Your task to perform on an android device: Go to Amazon Image 0: 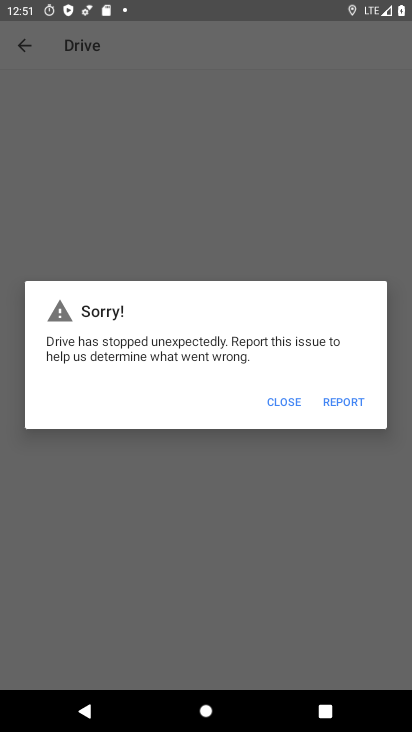
Step 0: press home button
Your task to perform on an android device: Go to Amazon Image 1: 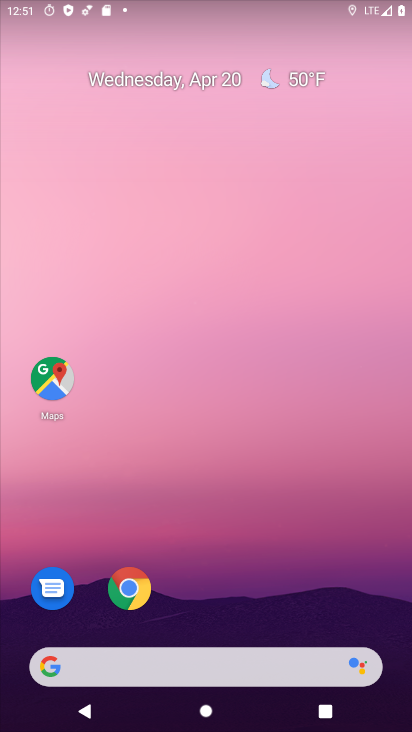
Step 1: click (140, 587)
Your task to perform on an android device: Go to Amazon Image 2: 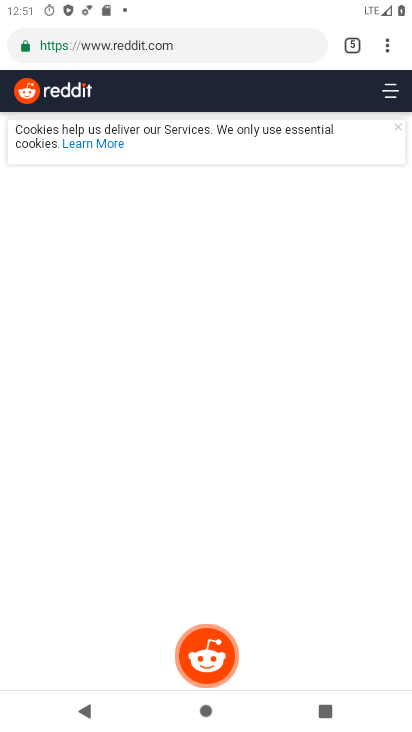
Step 2: click (348, 47)
Your task to perform on an android device: Go to Amazon Image 3: 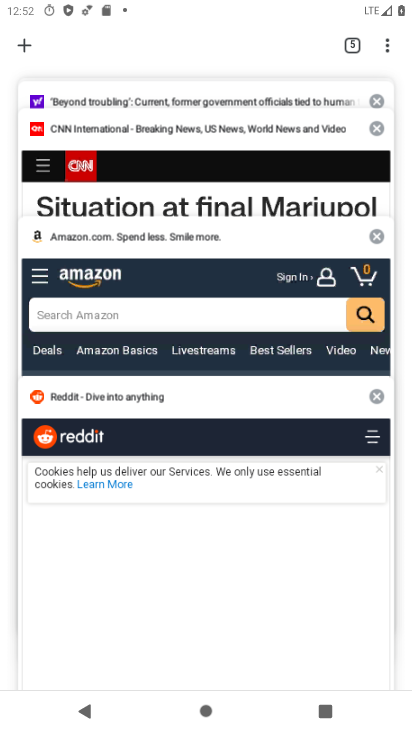
Step 3: click (23, 41)
Your task to perform on an android device: Go to Amazon Image 4: 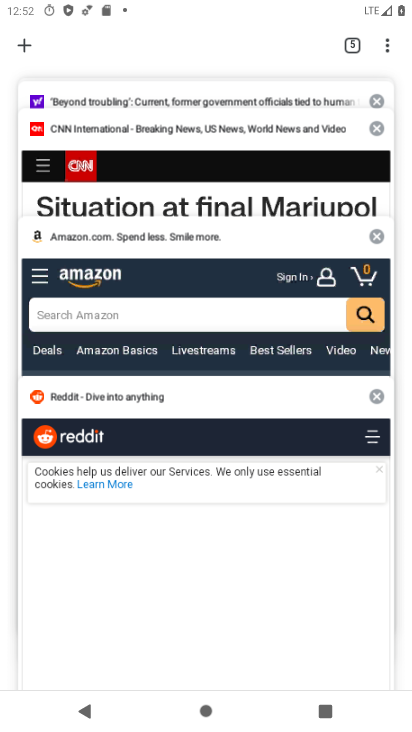
Step 4: click (31, 62)
Your task to perform on an android device: Go to Amazon Image 5: 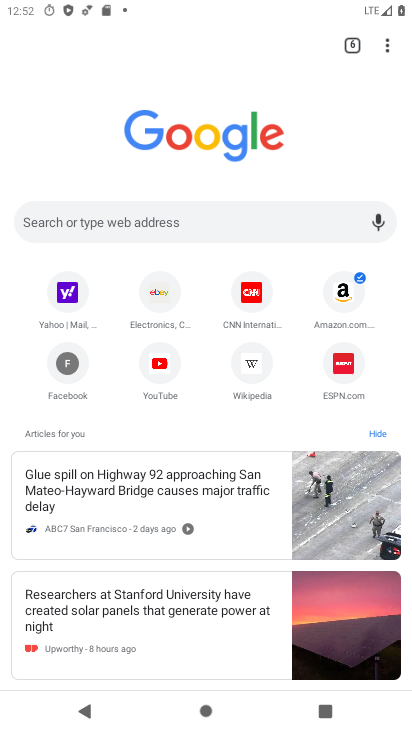
Step 5: click (339, 289)
Your task to perform on an android device: Go to Amazon Image 6: 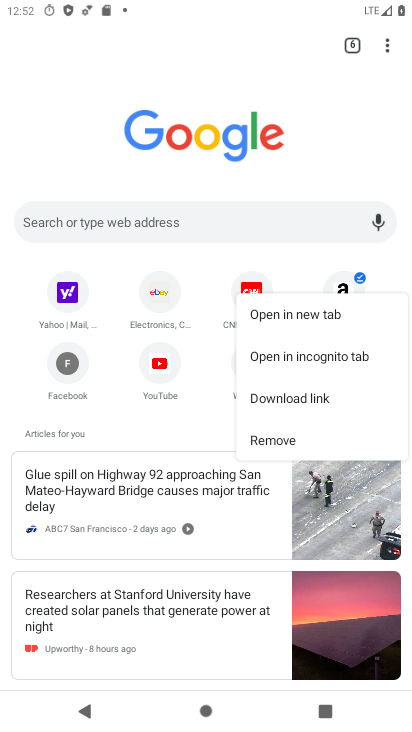
Step 6: click (340, 276)
Your task to perform on an android device: Go to Amazon Image 7: 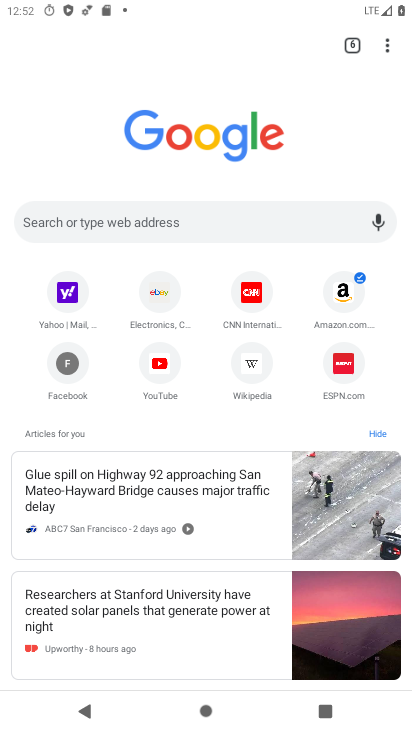
Step 7: click (340, 290)
Your task to perform on an android device: Go to Amazon Image 8: 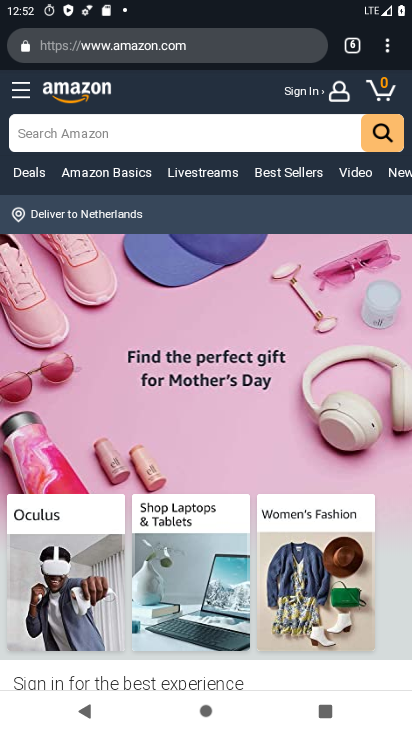
Step 8: task complete